Your task to perform on an android device: Go to Wikipedia Image 0: 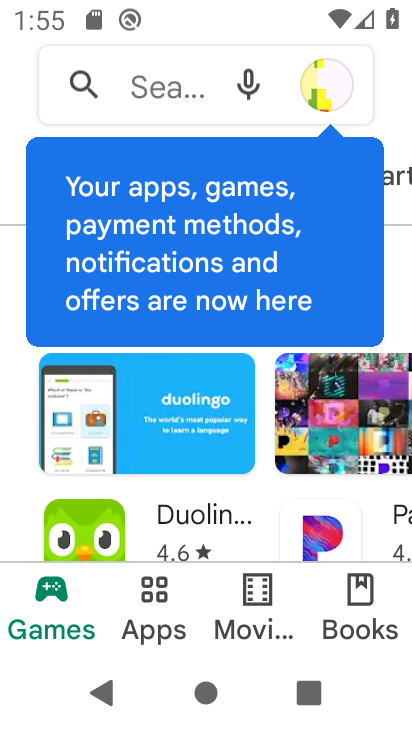
Step 0: press home button
Your task to perform on an android device: Go to Wikipedia Image 1: 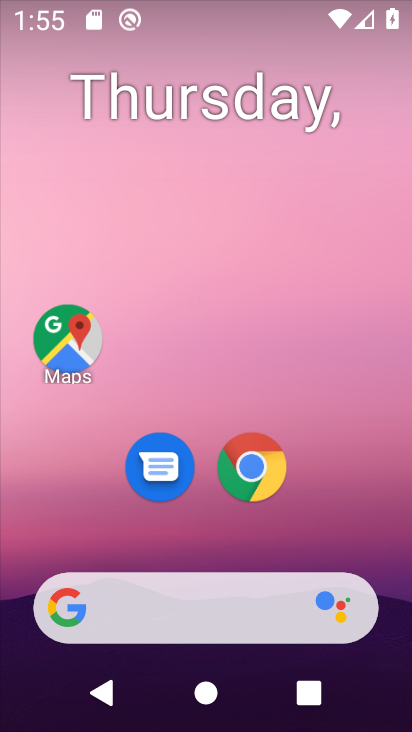
Step 1: click (251, 470)
Your task to perform on an android device: Go to Wikipedia Image 2: 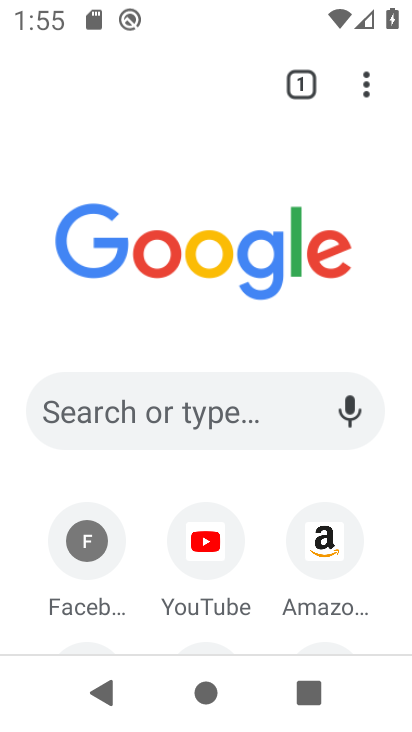
Step 2: drag from (256, 617) to (225, 312)
Your task to perform on an android device: Go to Wikipedia Image 3: 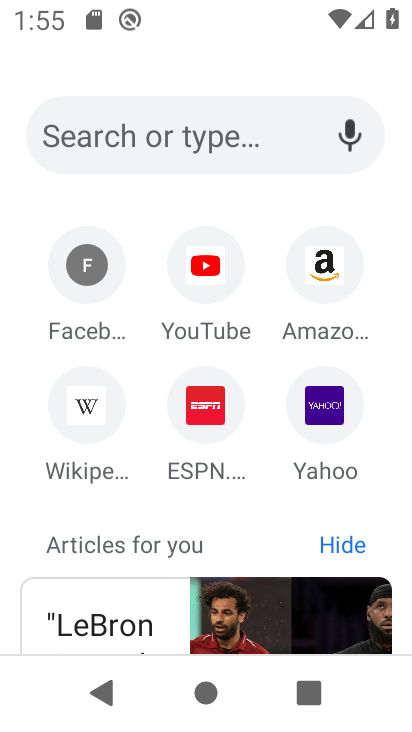
Step 3: drag from (69, 533) to (75, 432)
Your task to perform on an android device: Go to Wikipedia Image 4: 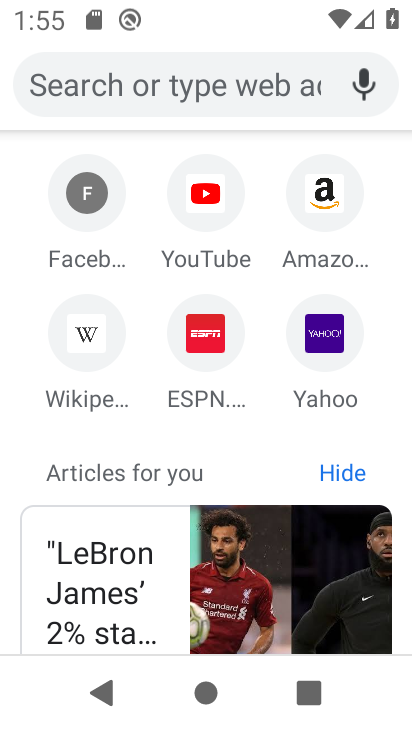
Step 4: click (100, 332)
Your task to perform on an android device: Go to Wikipedia Image 5: 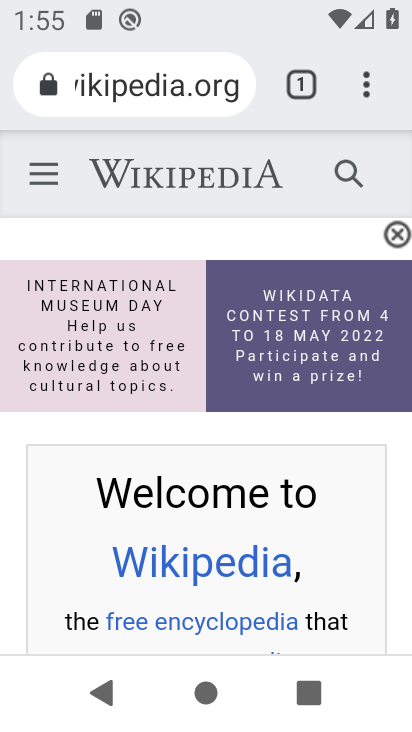
Step 5: task complete